Your task to perform on an android device: Go to Google Image 0: 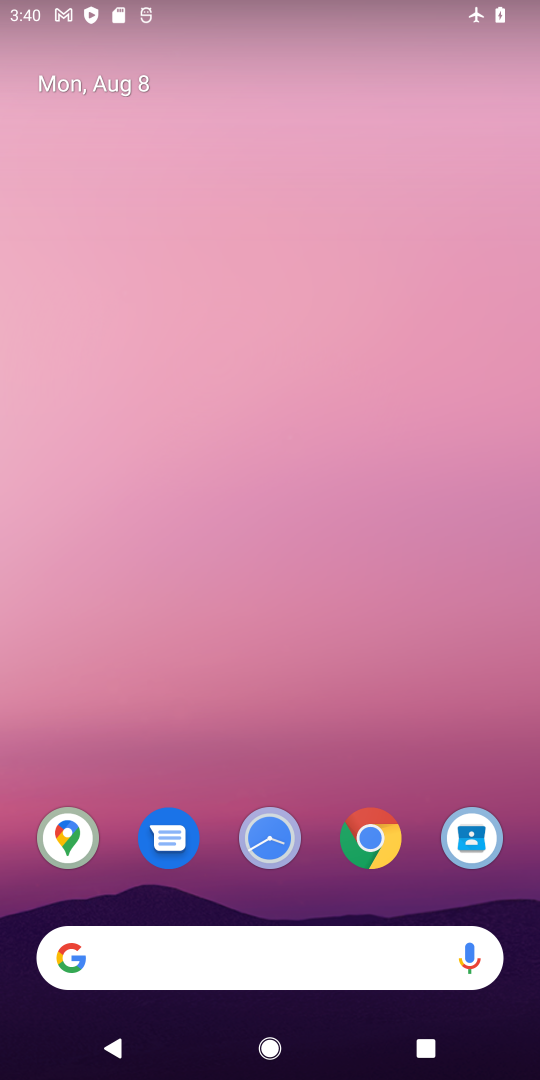
Step 0: drag from (270, 958) to (200, 178)
Your task to perform on an android device: Go to Google Image 1: 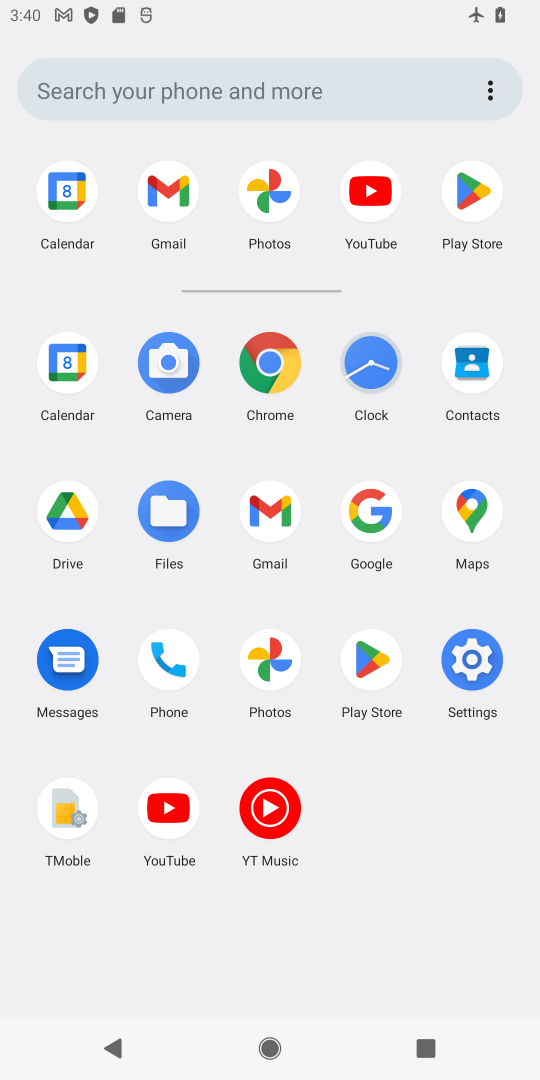
Step 1: click (365, 511)
Your task to perform on an android device: Go to Google Image 2: 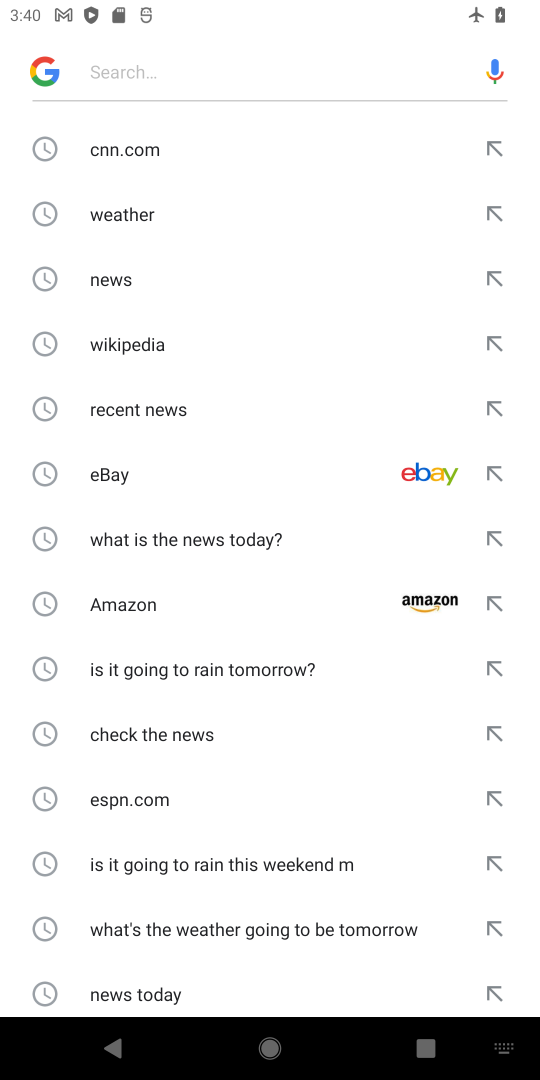
Step 2: task complete